Your task to perform on an android device: turn smart compose on in the gmail app Image 0: 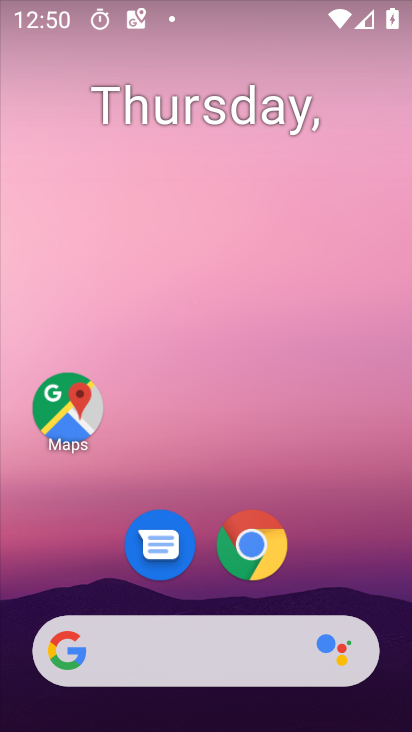
Step 0: drag from (74, 420) to (175, 145)
Your task to perform on an android device: turn smart compose on in the gmail app Image 1: 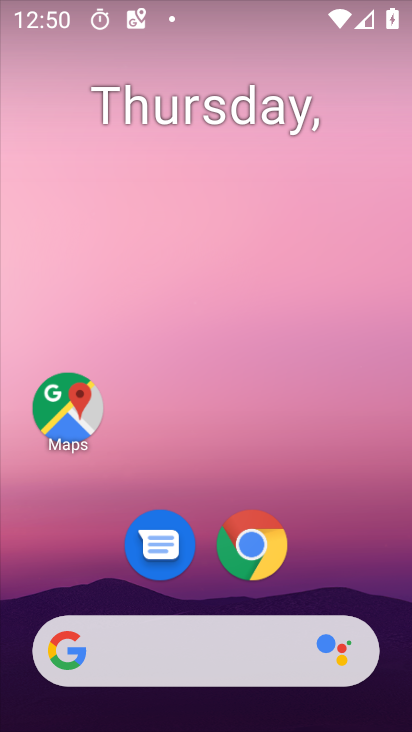
Step 1: drag from (97, 474) to (223, 188)
Your task to perform on an android device: turn smart compose on in the gmail app Image 2: 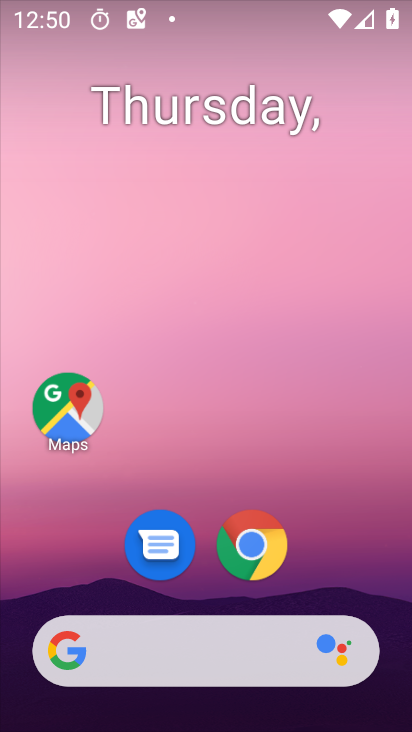
Step 2: drag from (21, 520) to (327, 16)
Your task to perform on an android device: turn smart compose on in the gmail app Image 3: 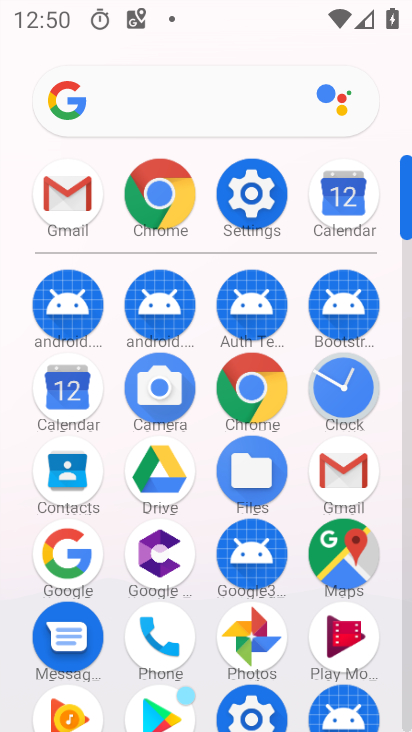
Step 3: click (80, 250)
Your task to perform on an android device: turn smart compose on in the gmail app Image 4: 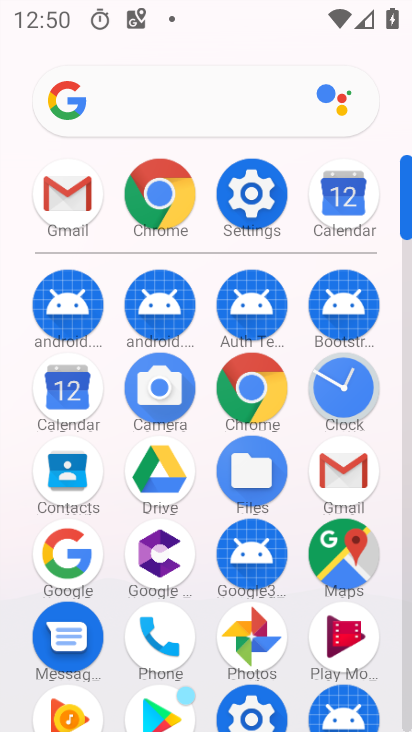
Step 4: click (58, 195)
Your task to perform on an android device: turn smart compose on in the gmail app Image 5: 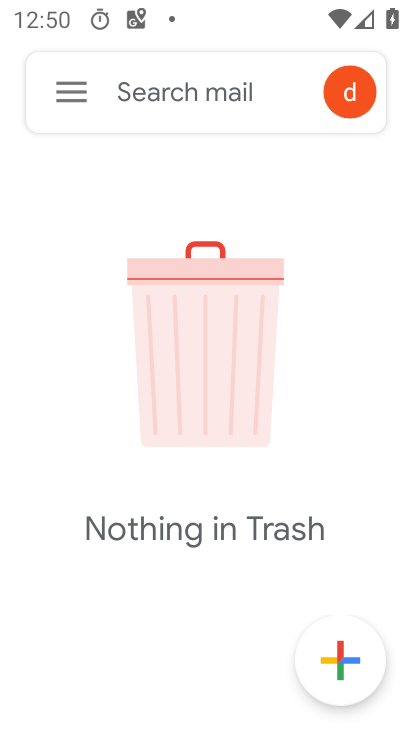
Step 5: click (66, 86)
Your task to perform on an android device: turn smart compose on in the gmail app Image 6: 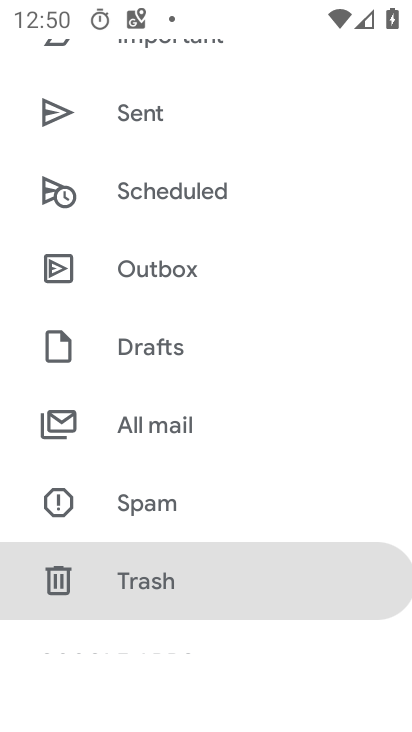
Step 6: drag from (139, 592) to (188, 255)
Your task to perform on an android device: turn smart compose on in the gmail app Image 7: 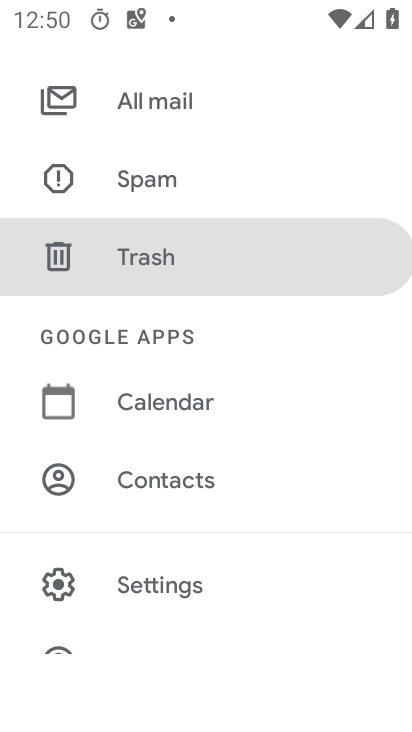
Step 7: drag from (36, 712) to (208, 231)
Your task to perform on an android device: turn smart compose on in the gmail app Image 8: 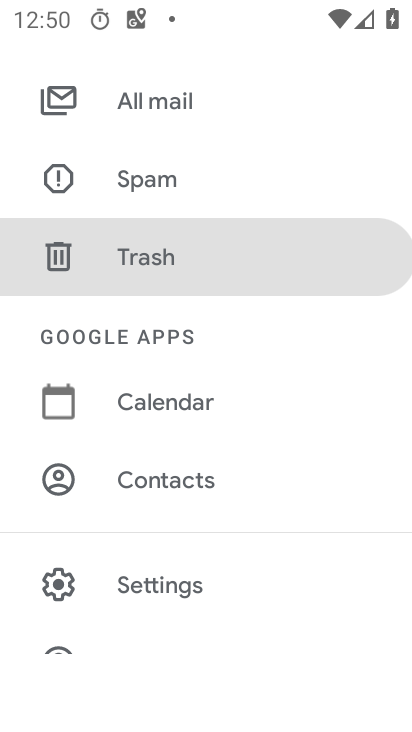
Step 8: click (126, 574)
Your task to perform on an android device: turn smart compose on in the gmail app Image 9: 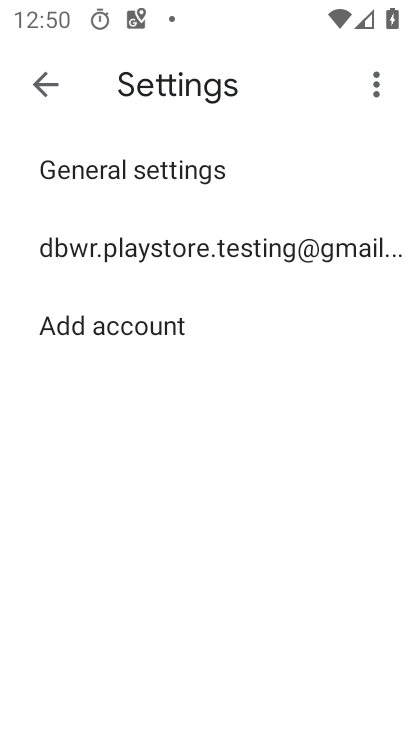
Step 9: click (148, 240)
Your task to perform on an android device: turn smart compose on in the gmail app Image 10: 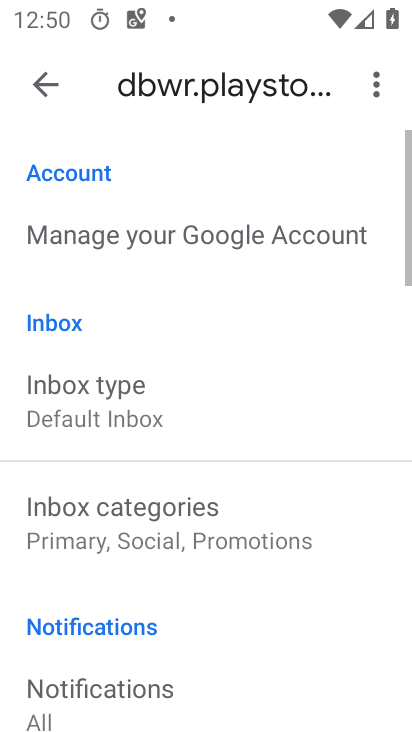
Step 10: task complete